Your task to perform on an android device: Open Chrome and go to the settings page Image 0: 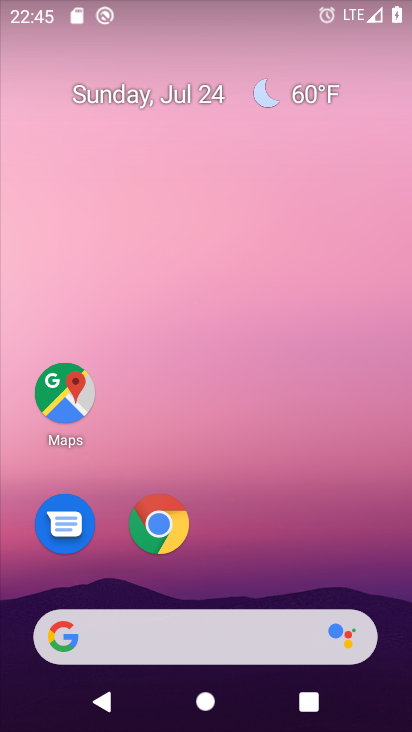
Step 0: click (162, 518)
Your task to perform on an android device: Open Chrome and go to the settings page Image 1: 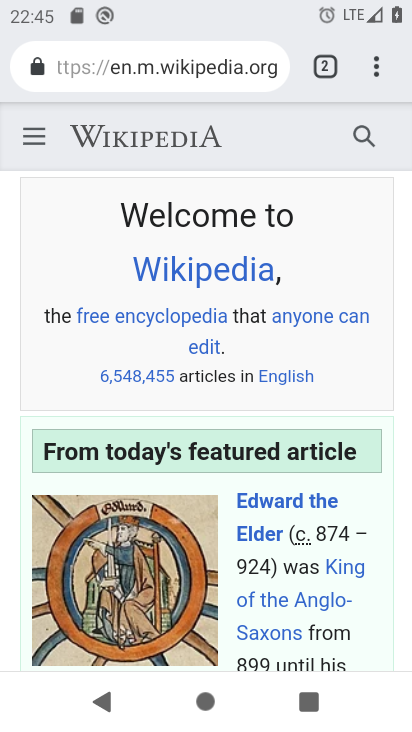
Step 1: press back button
Your task to perform on an android device: Open Chrome and go to the settings page Image 2: 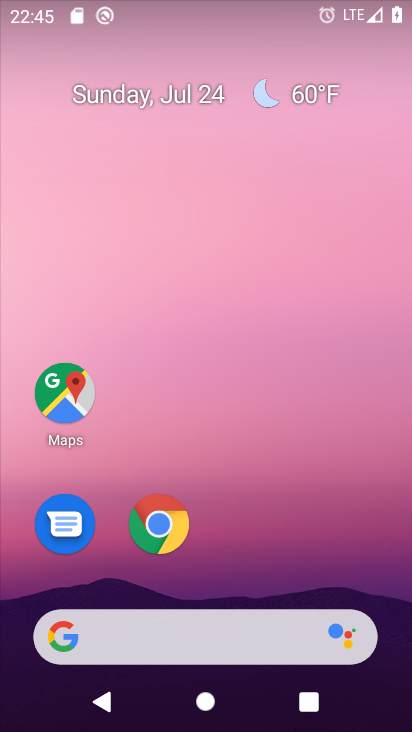
Step 2: click (169, 519)
Your task to perform on an android device: Open Chrome and go to the settings page Image 3: 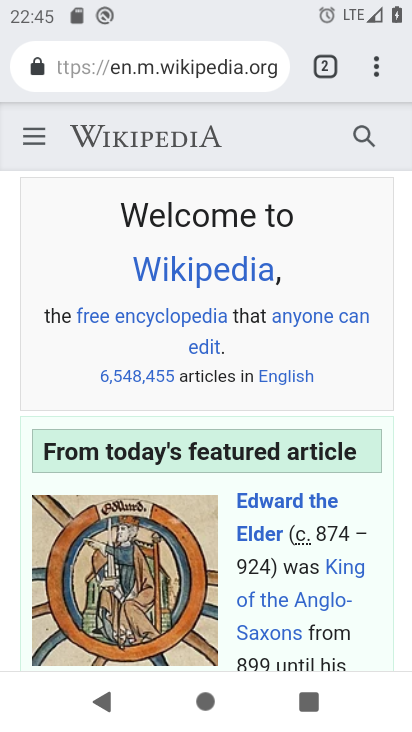
Step 3: click (336, 259)
Your task to perform on an android device: Open Chrome and go to the settings page Image 4: 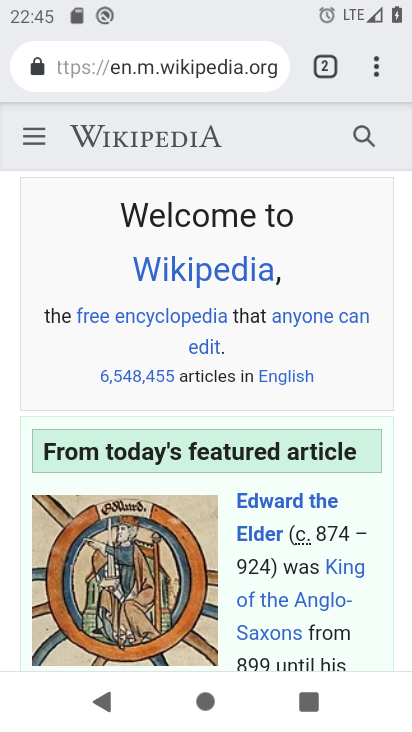
Step 4: press back button
Your task to perform on an android device: Open Chrome and go to the settings page Image 5: 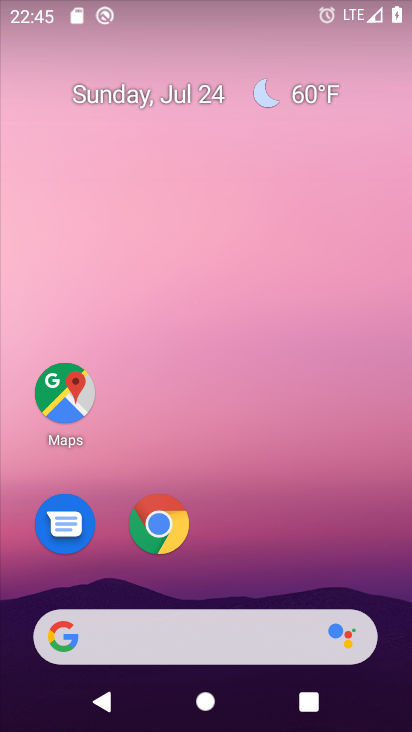
Step 5: click (167, 523)
Your task to perform on an android device: Open Chrome and go to the settings page Image 6: 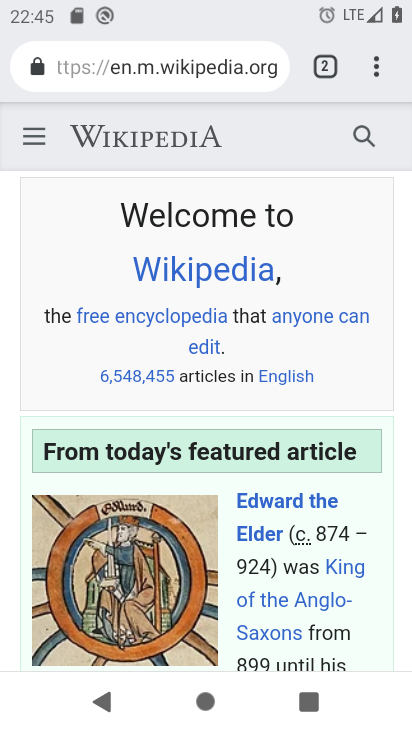
Step 6: click (377, 72)
Your task to perform on an android device: Open Chrome and go to the settings page Image 7: 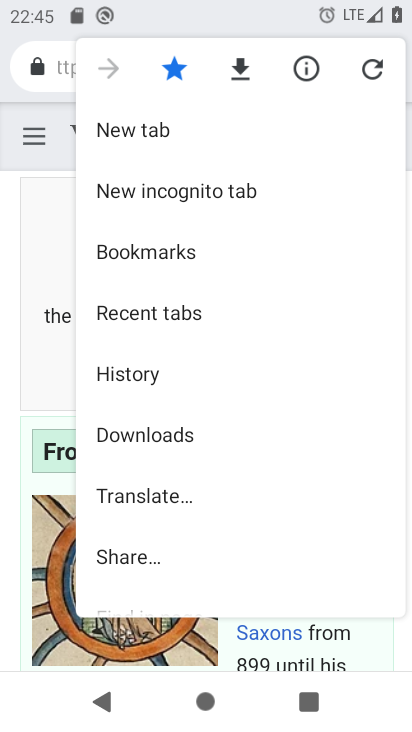
Step 7: drag from (262, 465) to (286, 288)
Your task to perform on an android device: Open Chrome and go to the settings page Image 8: 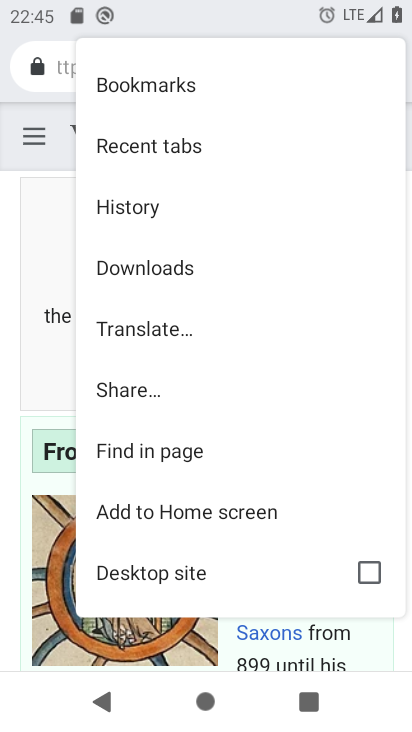
Step 8: drag from (264, 416) to (264, 215)
Your task to perform on an android device: Open Chrome and go to the settings page Image 9: 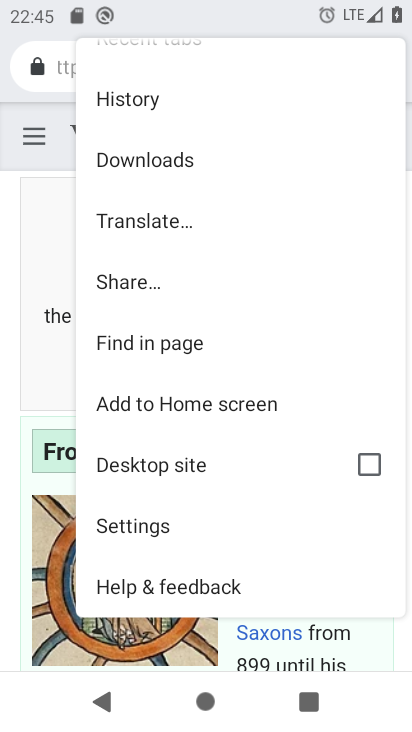
Step 9: click (154, 528)
Your task to perform on an android device: Open Chrome and go to the settings page Image 10: 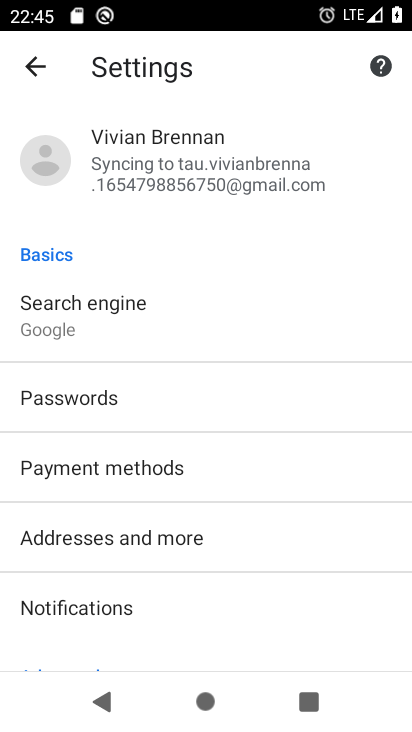
Step 10: task complete